Your task to perform on an android device: Open Chrome and go to settings Image 0: 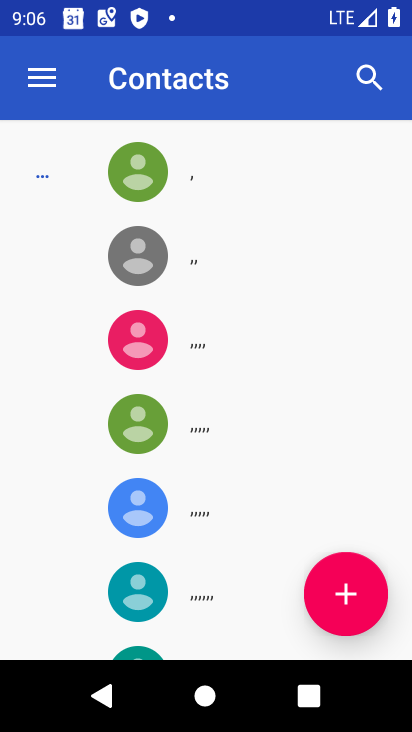
Step 0: press home button
Your task to perform on an android device: Open Chrome and go to settings Image 1: 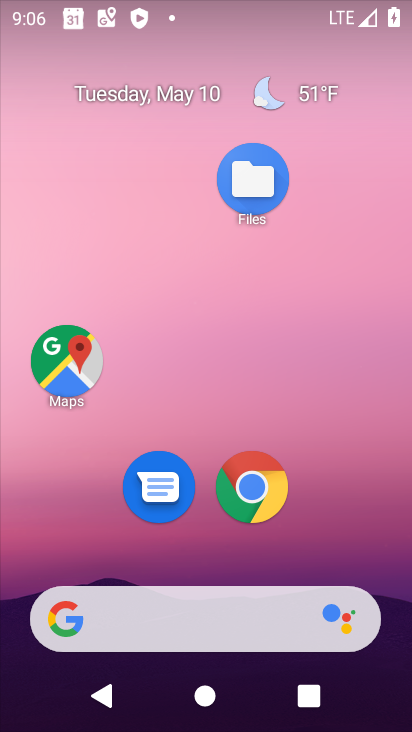
Step 1: click (255, 487)
Your task to perform on an android device: Open Chrome and go to settings Image 2: 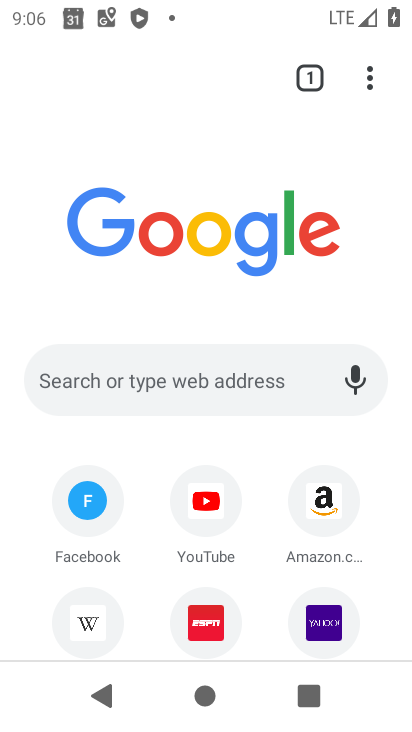
Step 2: click (364, 71)
Your task to perform on an android device: Open Chrome and go to settings Image 3: 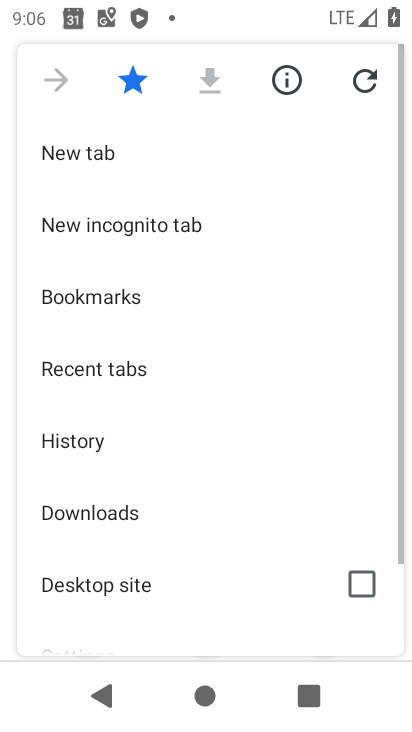
Step 3: drag from (240, 587) to (182, 350)
Your task to perform on an android device: Open Chrome and go to settings Image 4: 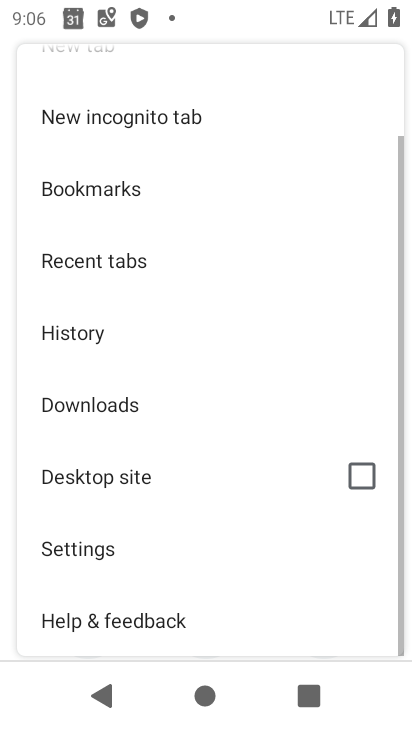
Step 4: click (105, 544)
Your task to perform on an android device: Open Chrome and go to settings Image 5: 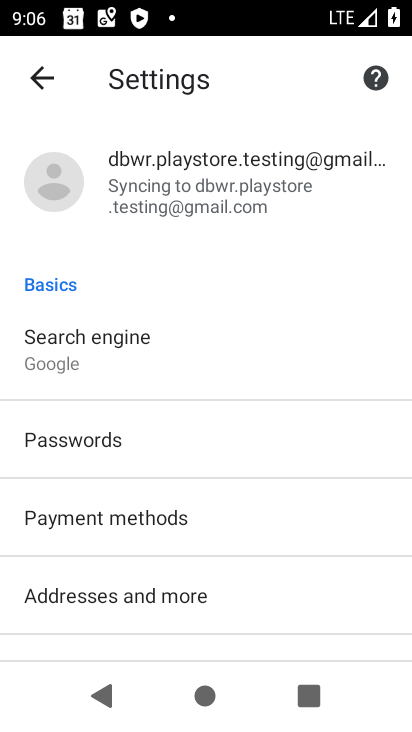
Step 5: task complete